Your task to perform on an android device: Go to Amazon Image 0: 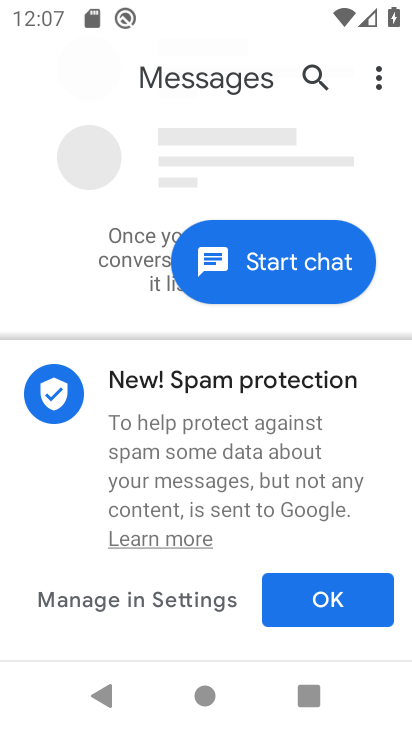
Step 0: press home button
Your task to perform on an android device: Go to Amazon Image 1: 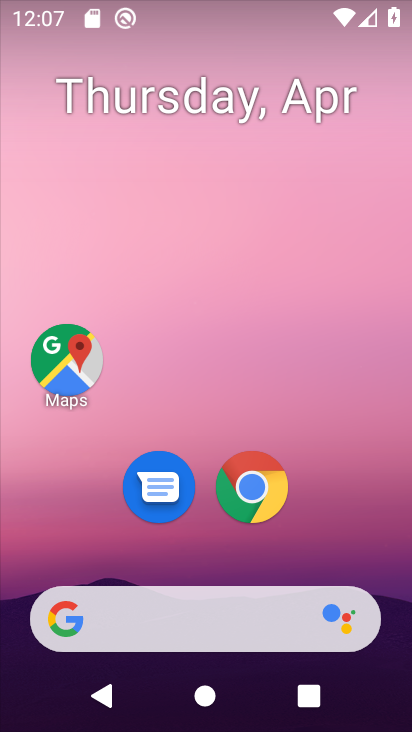
Step 1: drag from (243, 646) to (257, 150)
Your task to perform on an android device: Go to Amazon Image 2: 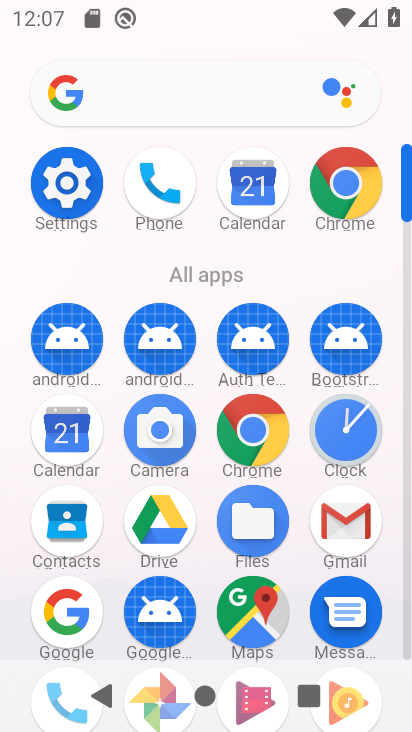
Step 2: click (240, 430)
Your task to perform on an android device: Go to Amazon Image 3: 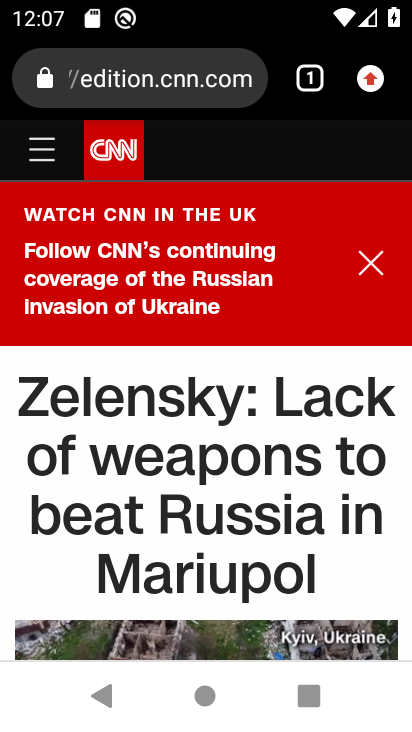
Step 3: click (301, 86)
Your task to perform on an android device: Go to Amazon Image 4: 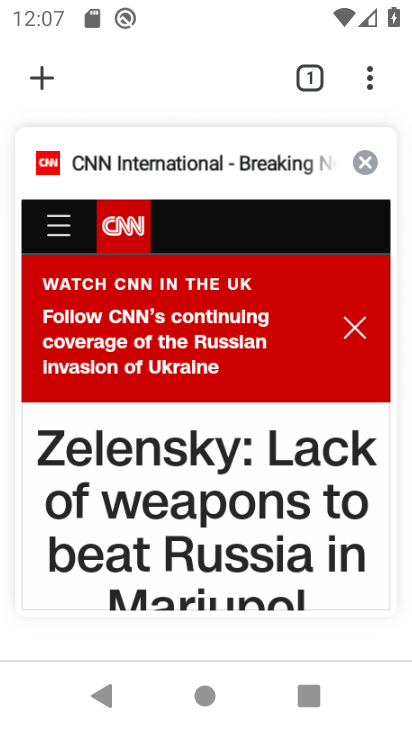
Step 4: click (45, 76)
Your task to perform on an android device: Go to Amazon Image 5: 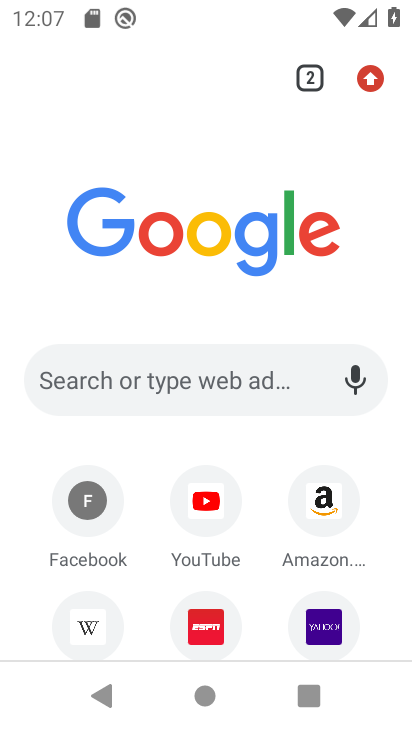
Step 5: click (304, 488)
Your task to perform on an android device: Go to Amazon Image 6: 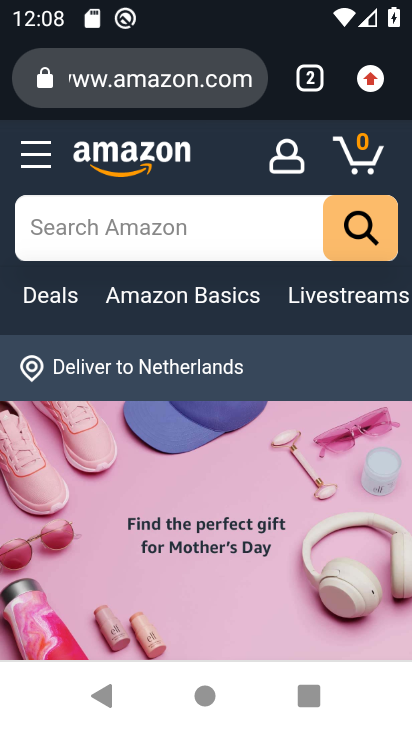
Step 6: task complete